Your task to perform on an android device: turn off smart reply in the gmail app Image 0: 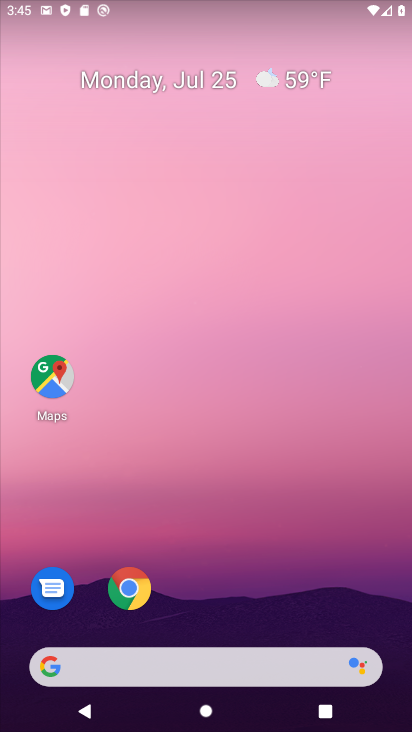
Step 0: press home button
Your task to perform on an android device: turn off smart reply in the gmail app Image 1: 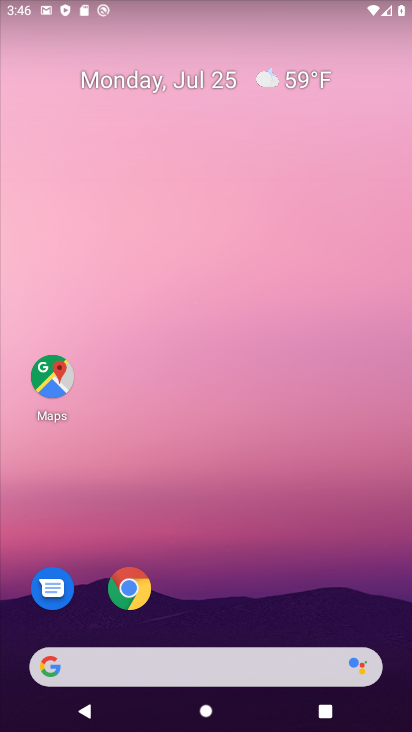
Step 1: drag from (344, 616) to (334, 9)
Your task to perform on an android device: turn off smart reply in the gmail app Image 2: 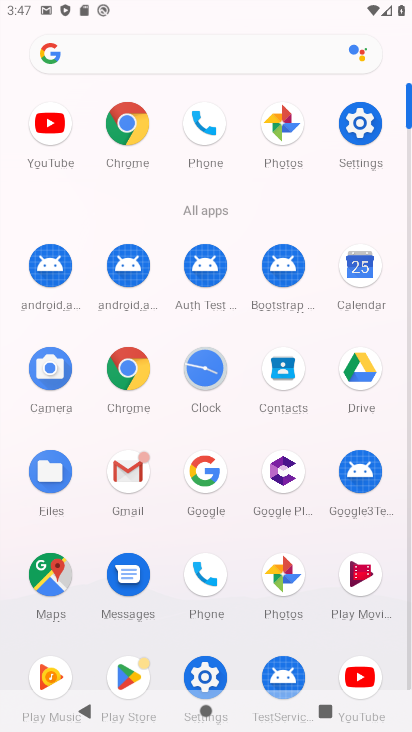
Step 2: click (122, 474)
Your task to perform on an android device: turn off smart reply in the gmail app Image 3: 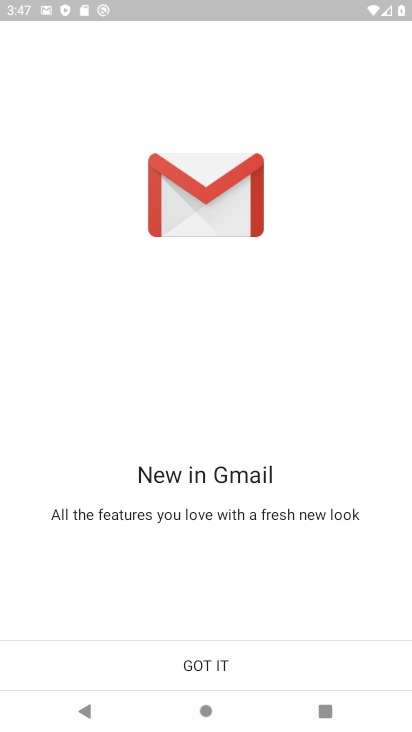
Step 3: click (193, 648)
Your task to perform on an android device: turn off smart reply in the gmail app Image 4: 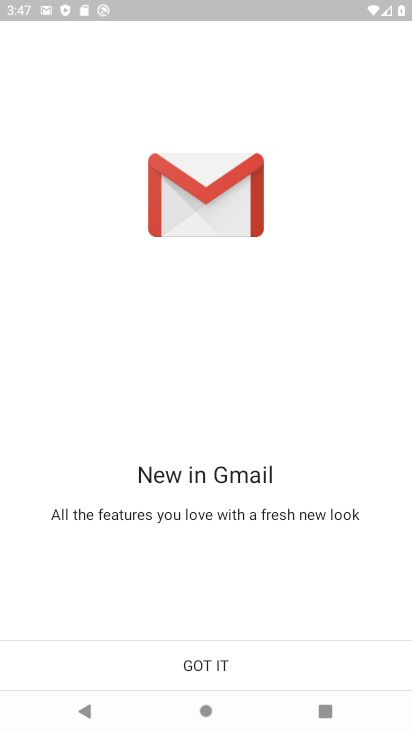
Step 4: click (193, 648)
Your task to perform on an android device: turn off smart reply in the gmail app Image 5: 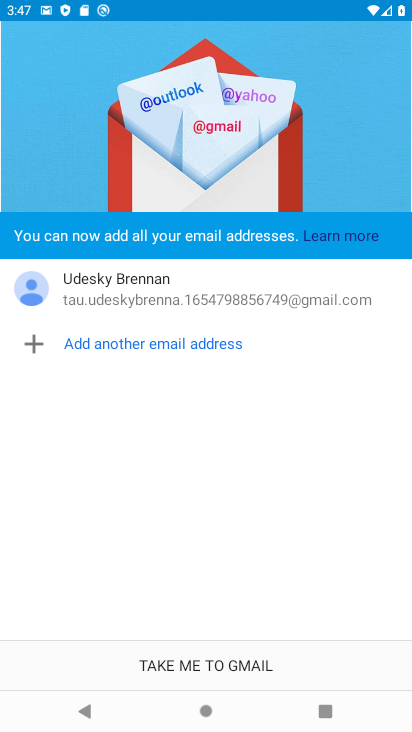
Step 5: click (195, 664)
Your task to perform on an android device: turn off smart reply in the gmail app Image 6: 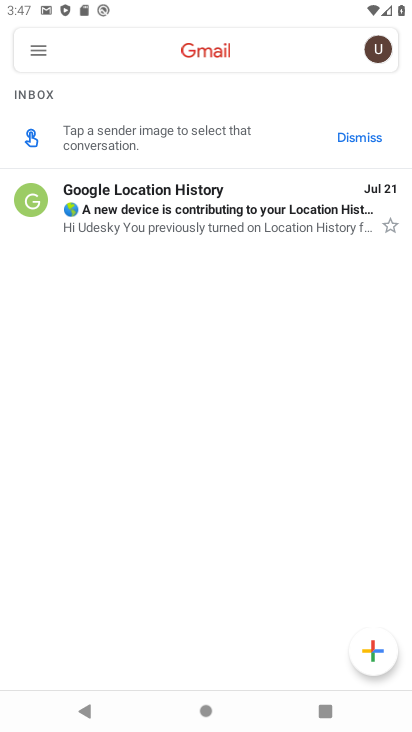
Step 6: click (36, 59)
Your task to perform on an android device: turn off smart reply in the gmail app Image 7: 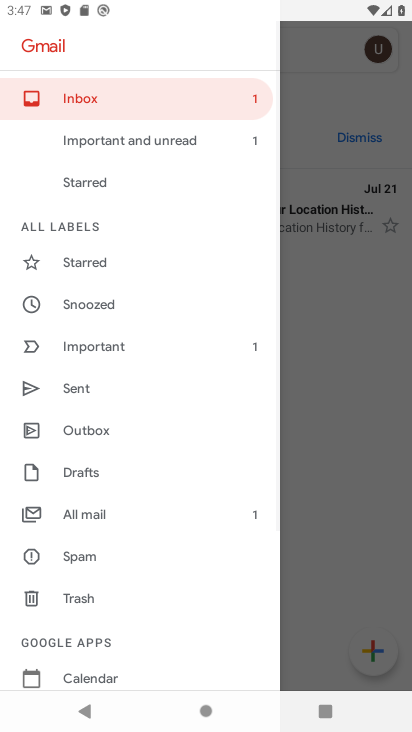
Step 7: drag from (61, 576) to (50, 288)
Your task to perform on an android device: turn off smart reply in the gmail app Image 8: 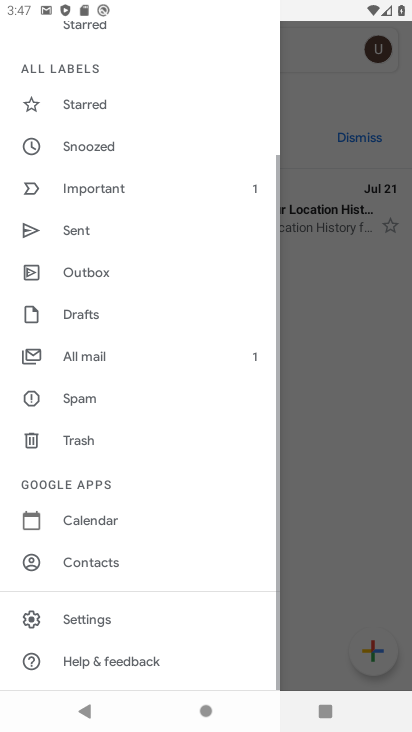
Step 8: click (54, 621)
Your task to perform on an android device: turn off smart reply in the gmail app Image 9: 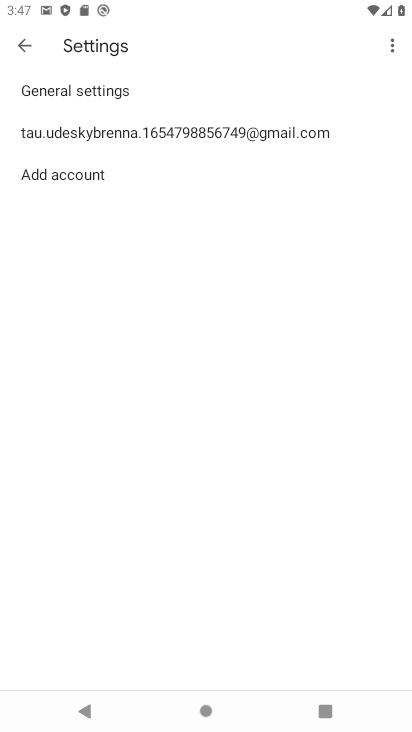
Step 9: click (32, 135)
Your task to perform on an android device: turn off smart reply in the gmail app Image 10: 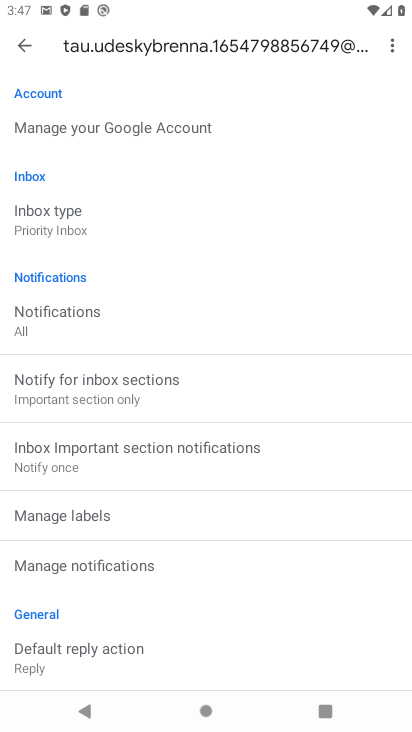
Step 10: drag from (105, 565) to (97, 265)
Your task to perform on an android device: turn off smart reply in the gmail app Image 11: 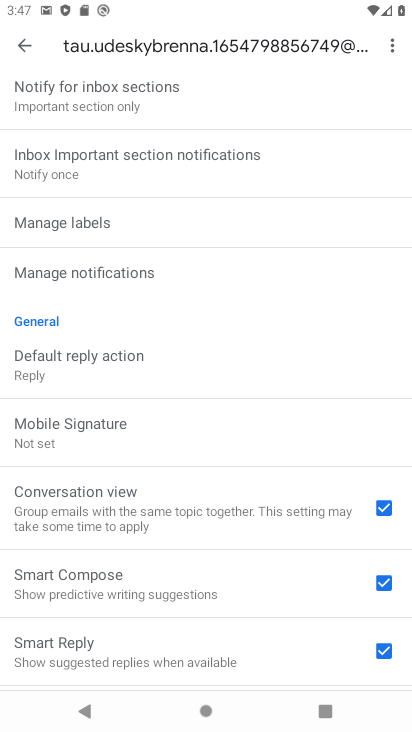
Step 11: drag from (84, 524) to (84, 277)
Your task to perform on an android device: turn off smart reply in the gmail app Image 12: 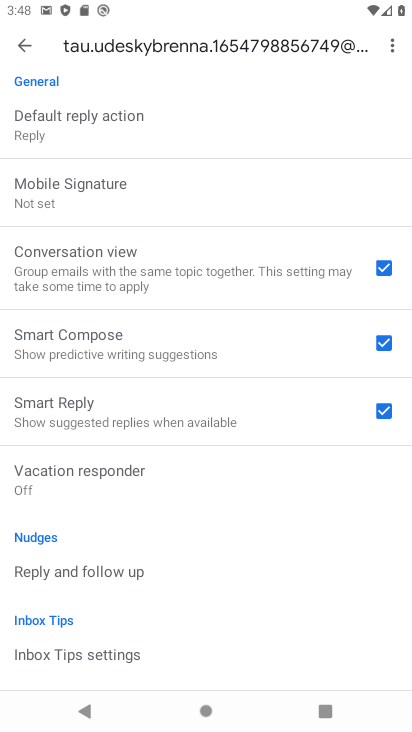
Step 12: click (123, 419)
Your task to perform on an android device: turn off smart reply in the gmail app Image 13: 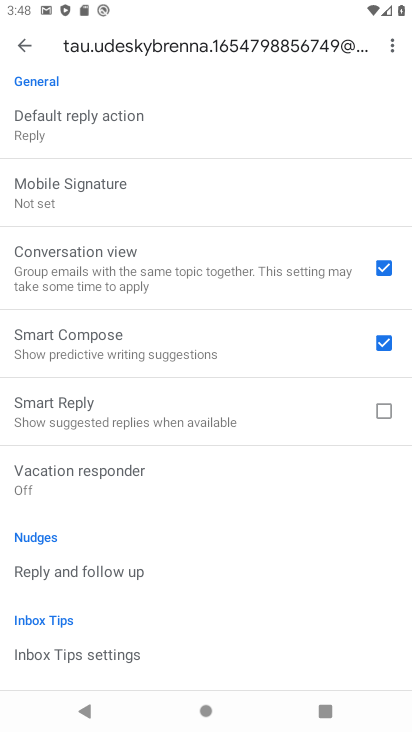
Step 13: task complete